Your task to perform on an android device: open chrome and create a bookmark for the current page Image 0: 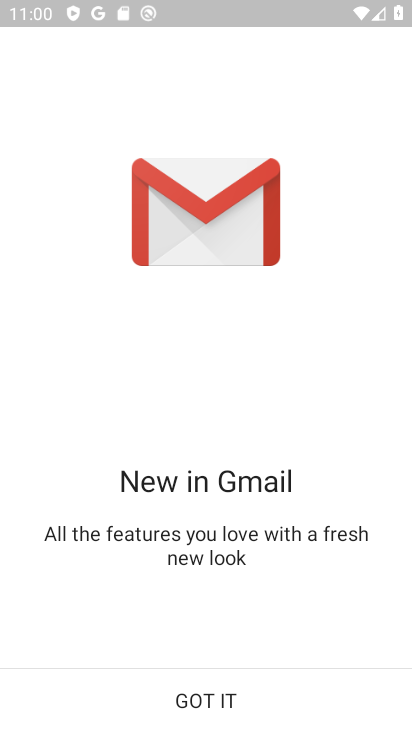
Step 0: press home button
Your task to perform on an android device: open chrome and create a bookmark for the current page Image 1: 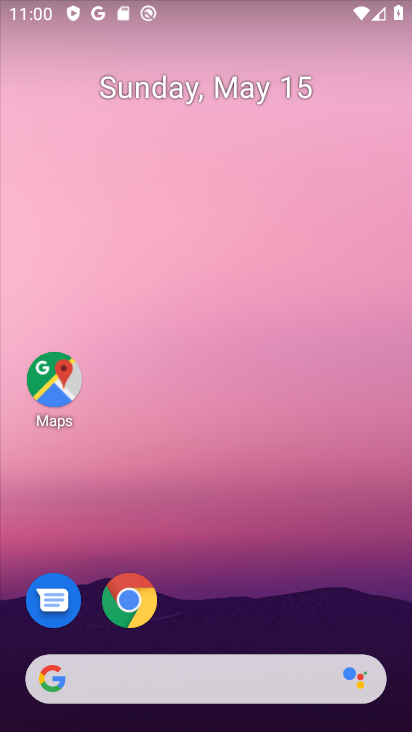
Step 1: click (129, 594)
Your task to perform on an android device: open chrome and create a bookmark for the current page Image 2: 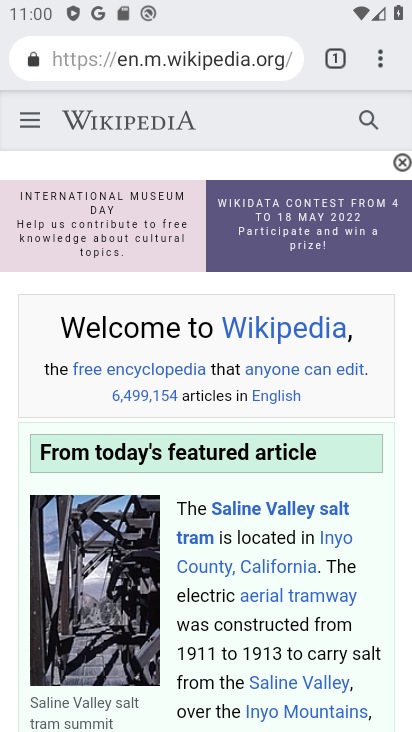
Step 2: task complete